Your task to perform on an android device: Open calendar and show me the third week of next month Image 0: 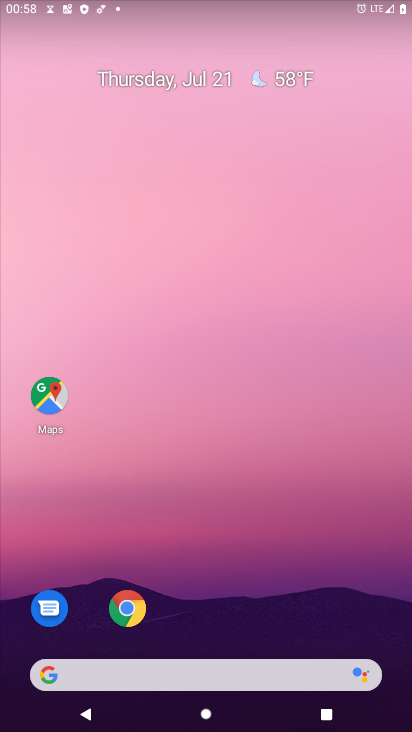
Step 0: press home button
Your task to perform on an android device: Open calendar and show me the third week of next month Image 1: 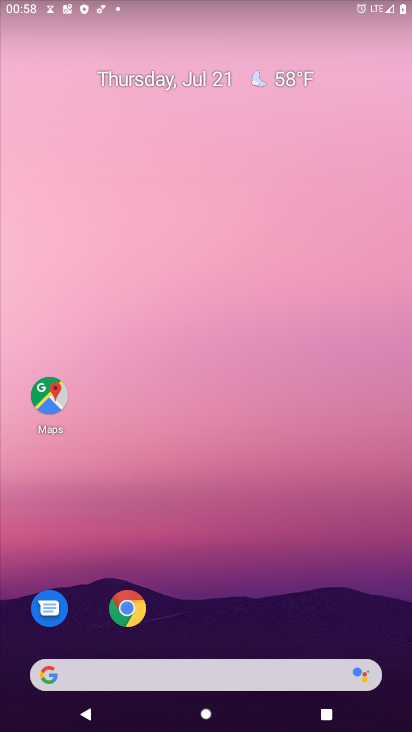
Step 1: drag from (201, 642) to (239, 48)
Your task to perform on an android device: Open calendar and show me the third week of next month Image 2: 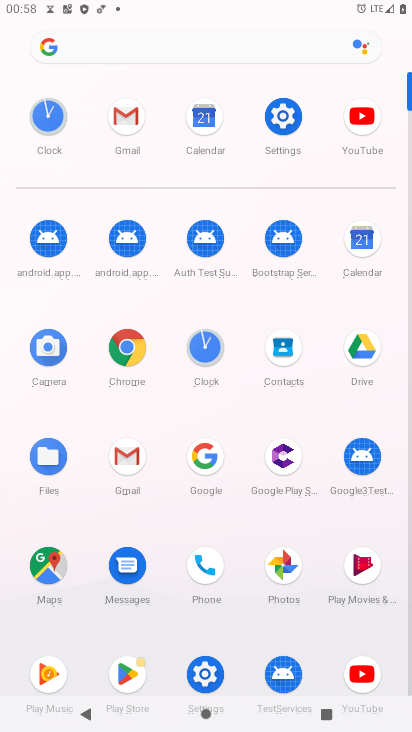
Step 2: click (363, 231)
Your task to perform on an android device: Open calendar and show me the third week of next month Image 3: 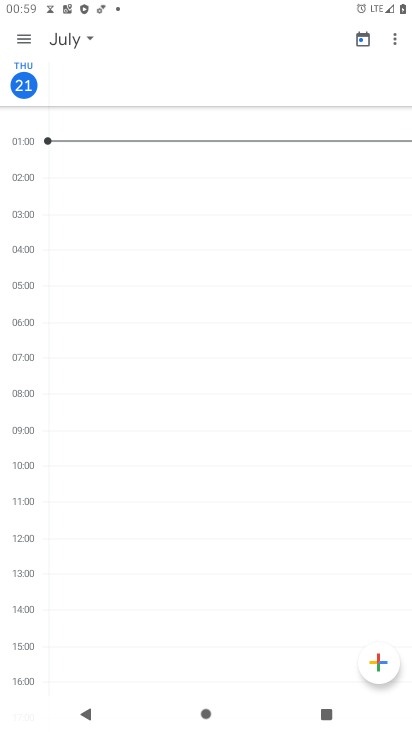
Step 3: click (82, 33)
Your task to perform on an android device: Open calendar and show me the third week of next month Image 4: 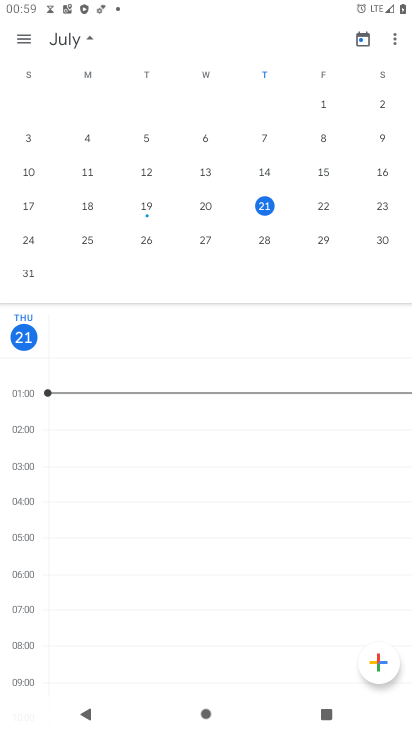
Step 4: drag from (352, 189) to (11, 221)
Your task to perform on an android device: Open calendar and show me the third week of next month Image 5: 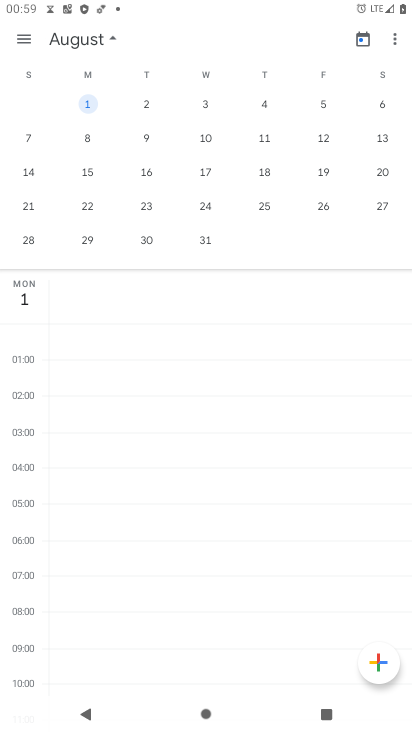
Step 5: click (29, 168)
Your task to perform on an android device: Open calendar and show me the third week of next month Image 6: 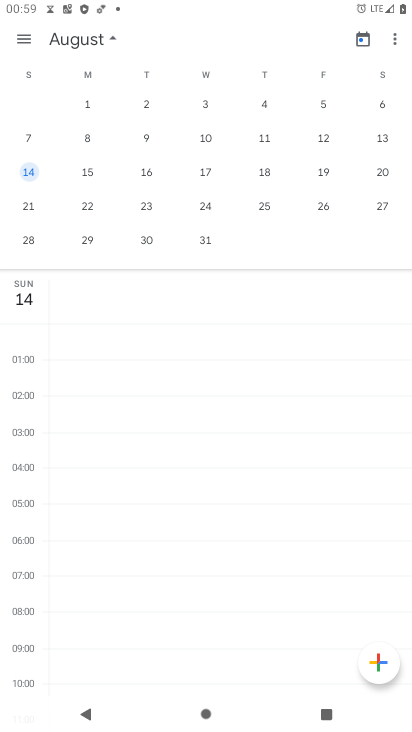
Step 6: click (24, 301)
Your task to perform on an android device: Open calendar and show me the third week of next month Image 7: 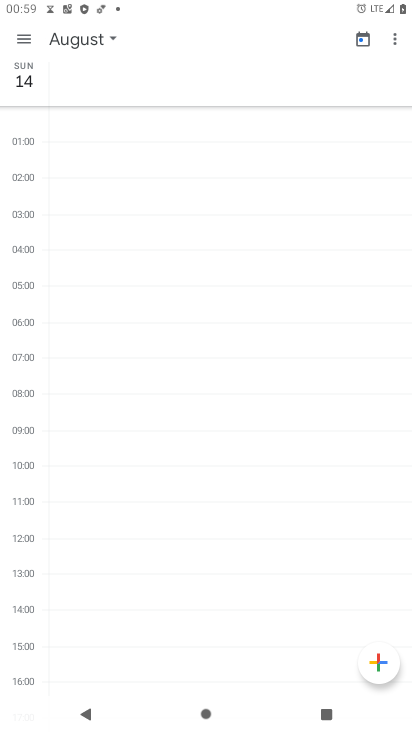
Step 7: click (37, 79)
Your task to perform on an android device: Open calendar and show me the third week of next month Image 8: 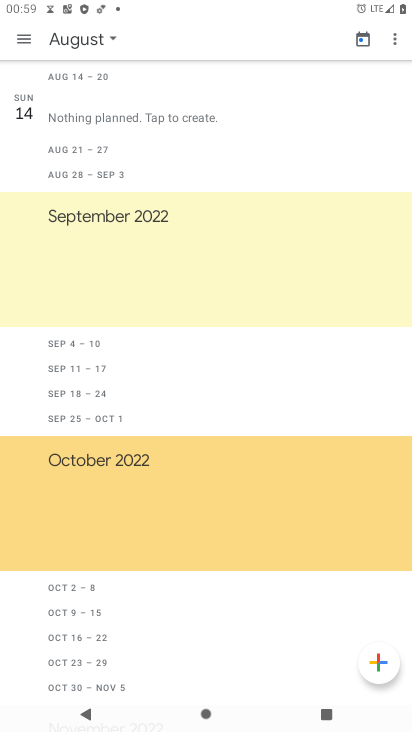
Step 8: click (13, 37)
Your task to perform on an android device: Open calendar and show me the third week of next month Image 9: 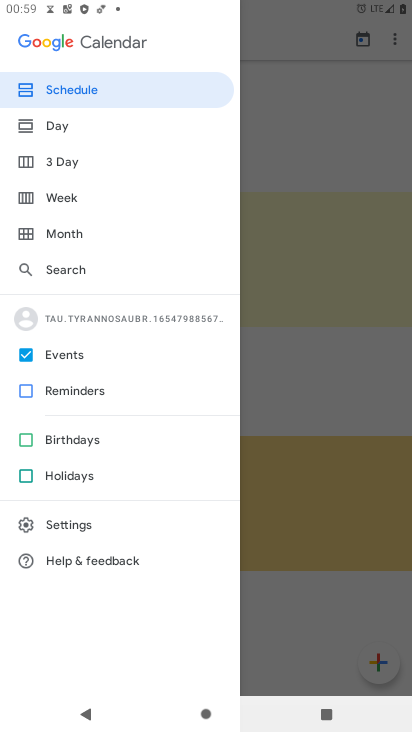
Step 9: click (53, 191)
Your task to perform on an android device: Open calendar and show me the third week of next month Image 10: 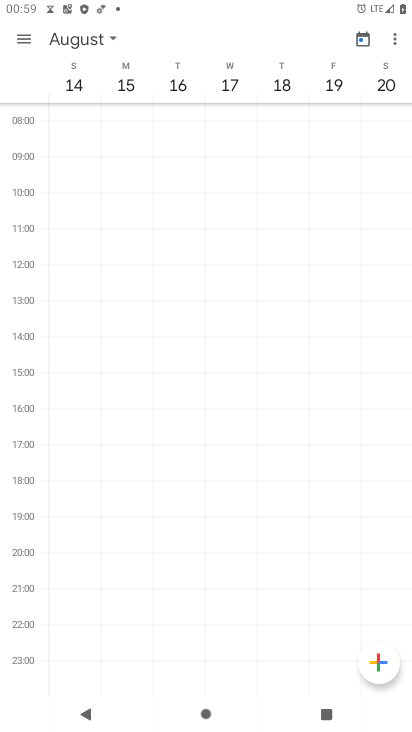
Step 10: task complete